Your task to perform on an android device: Open the stopwatch Image 0: 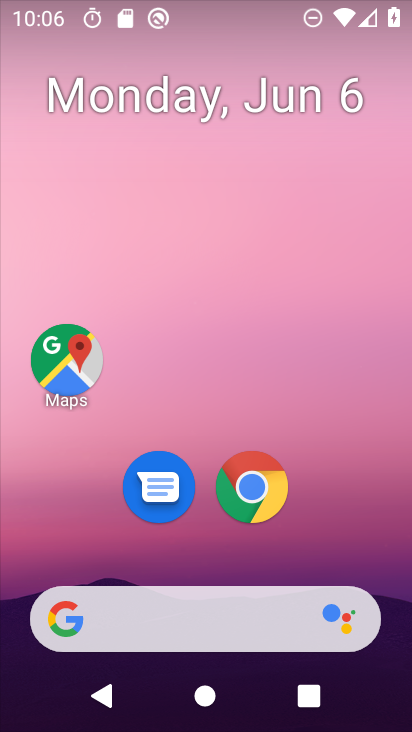
Step 0: drag from (386, 611) to (313, 19)
Your task to perform on an android device: Open the stopwatch Image 1: 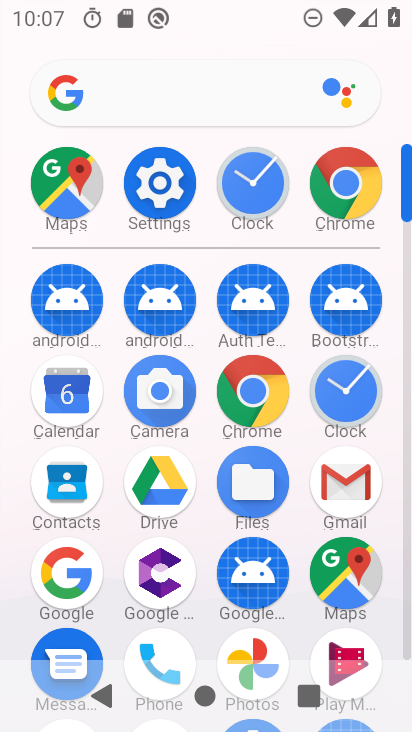
Step 1: click (272, 211)
Your task to perform on an android device: Open the stopwatch Image 2: 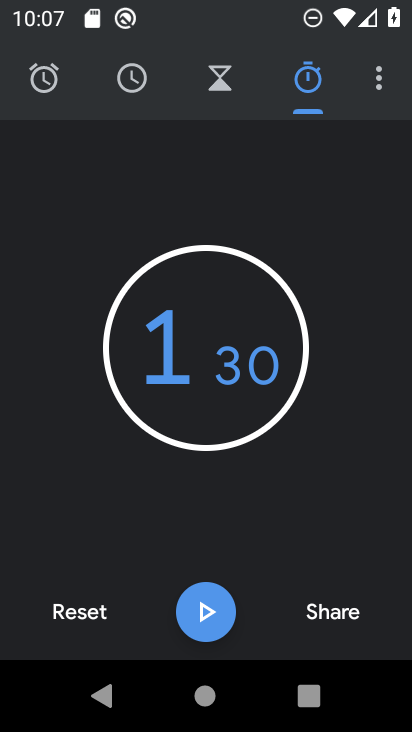
Step 2: task complete